Your task to perform on an android device: Add alienware area 51 to the cart on newegg.com, then select checkout. Image 0: 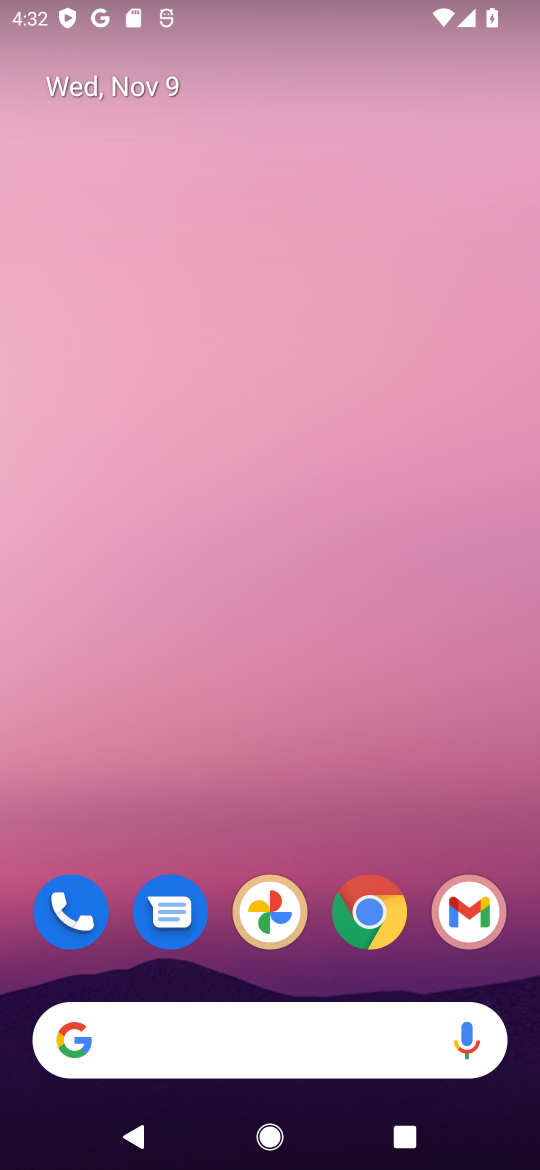
Step 0: click (371, 909)
Your task to perform on an android device: Add alienware area 51 to the cart on newegg.com, then select checkout. Image 1: 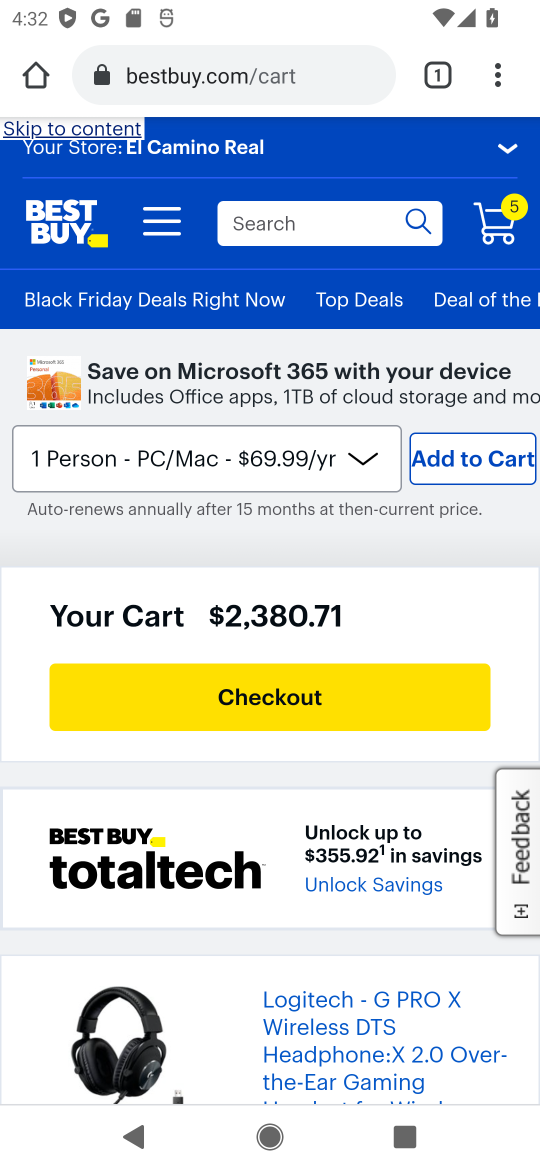
Step 1: click (278, 72)
Your task to perform on an android device: Add alienware area 51 to the cart on newegg.com, then select checkout. Image 2: 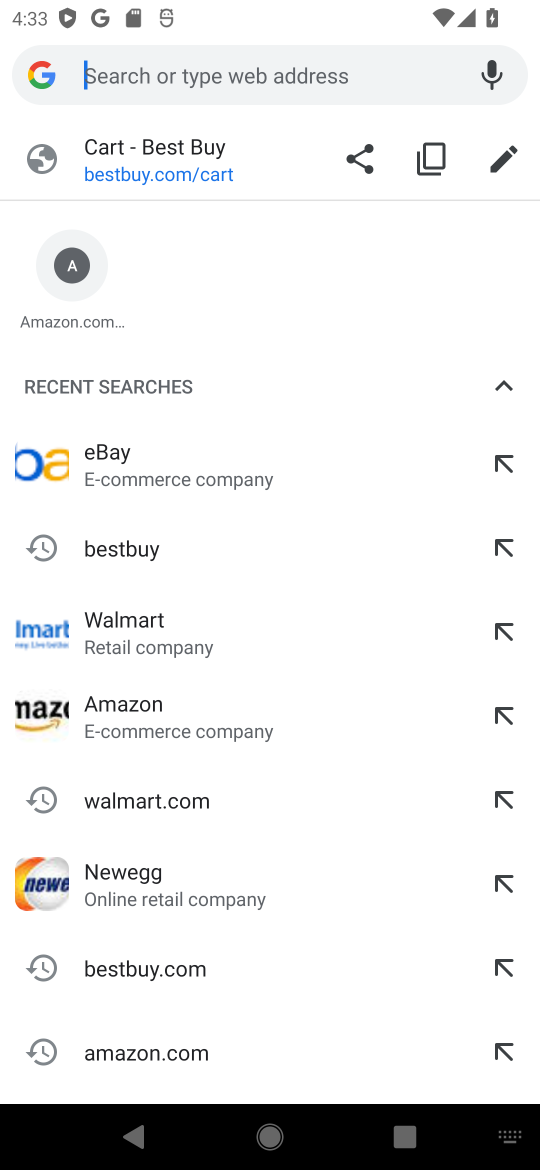
Step 2: type "newegg.com"
Your task to perform on an android device: Add alienware area 51 to the cart on newegg.com, then select checkout. Image 3: 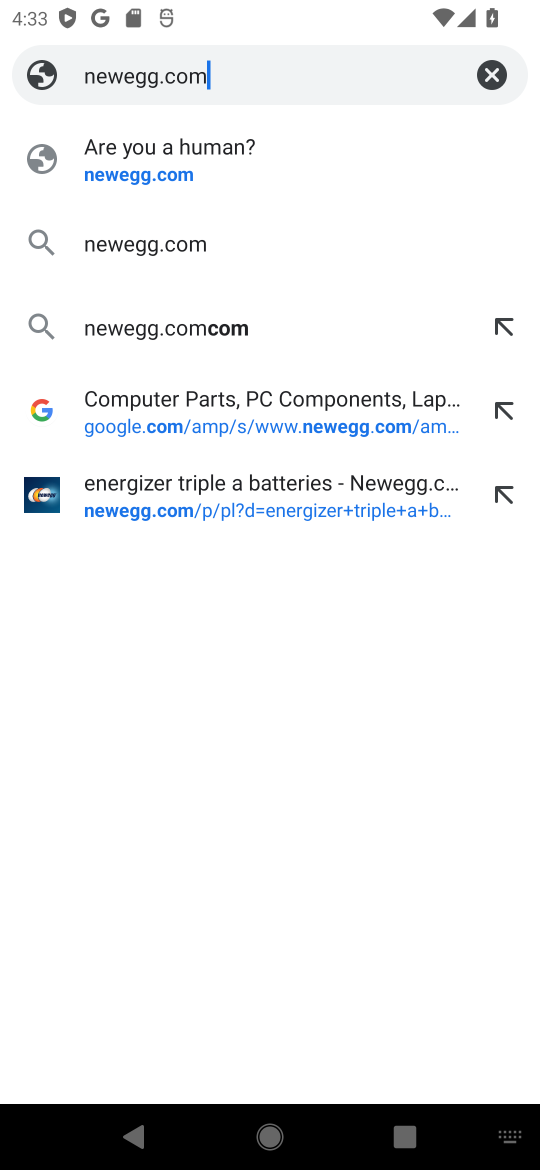
Step 3: click (163, 241)
Your task to perform on an android device: Add alienware area 51 to the cart on newegg.com, then select checkout. Image 4: 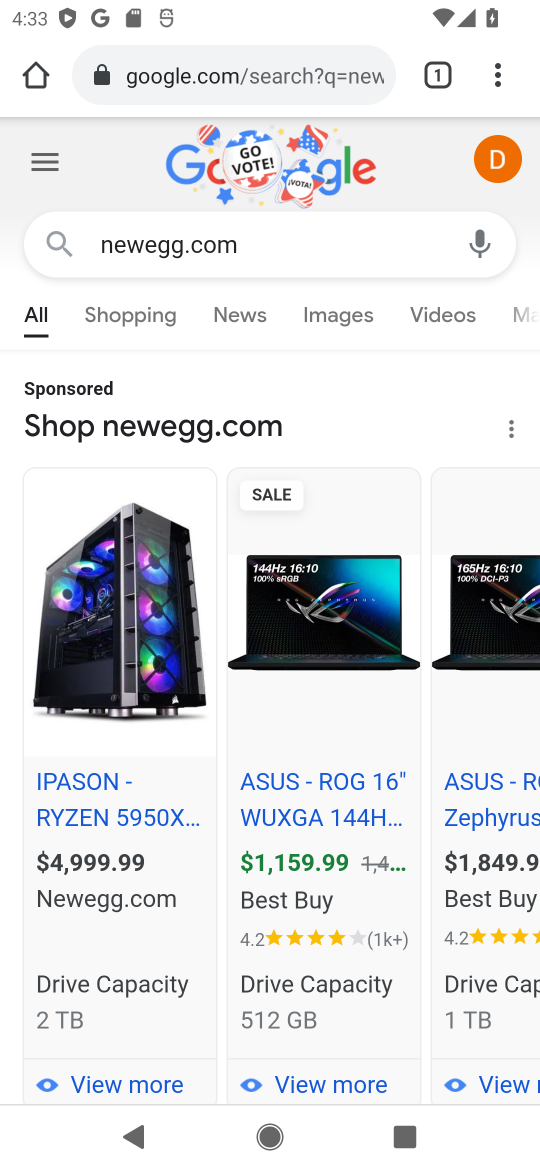
Step 4: drag from (290, 916) to (344, 325)
Your task to perform on an android device: Add alienware area 51 to the cart on newegg.com, then select checkout. Image 5: 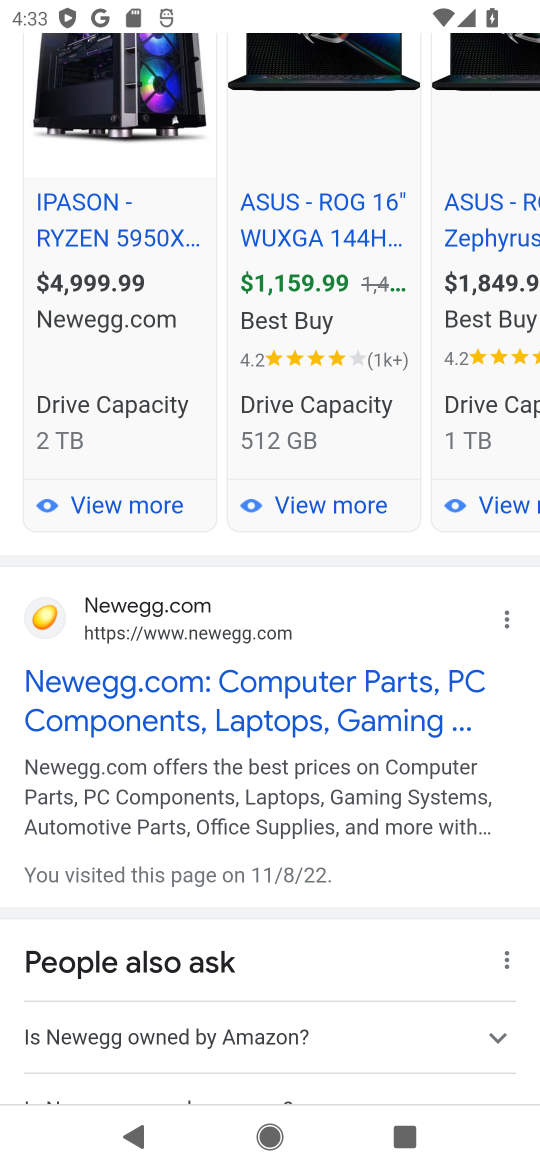
Step 5: click (282, 724)
Your task to perform on an android device: Add alienware area 51 to the cart on newegg.com, then select checkout. Image 6: 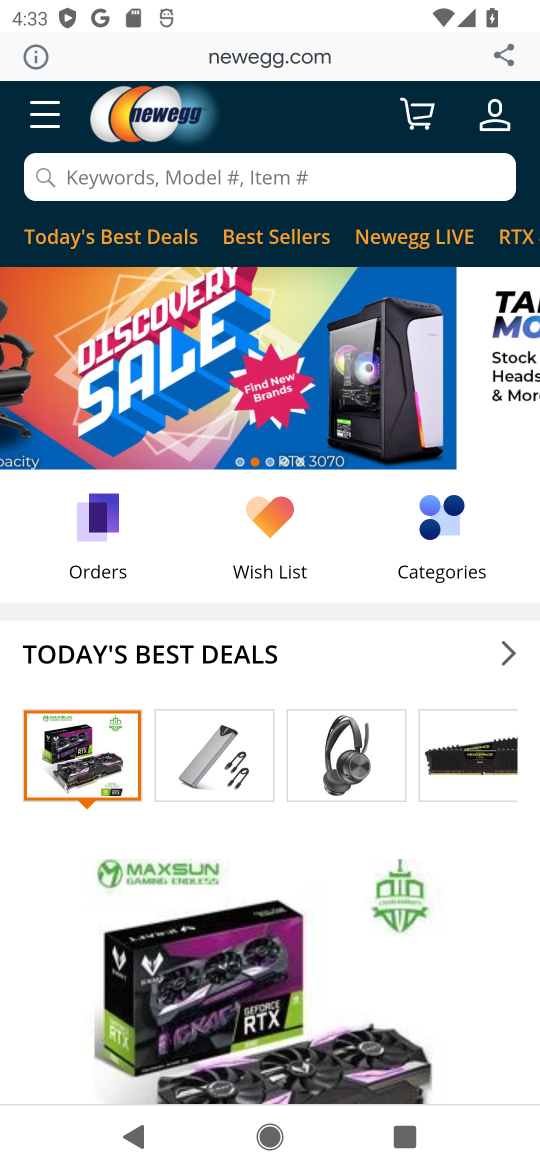
Step 6: click (325, 184)
Your task to perform on an android device: Add alienware area 51 to the cart on newegg.com, then select checkout. Image 7: 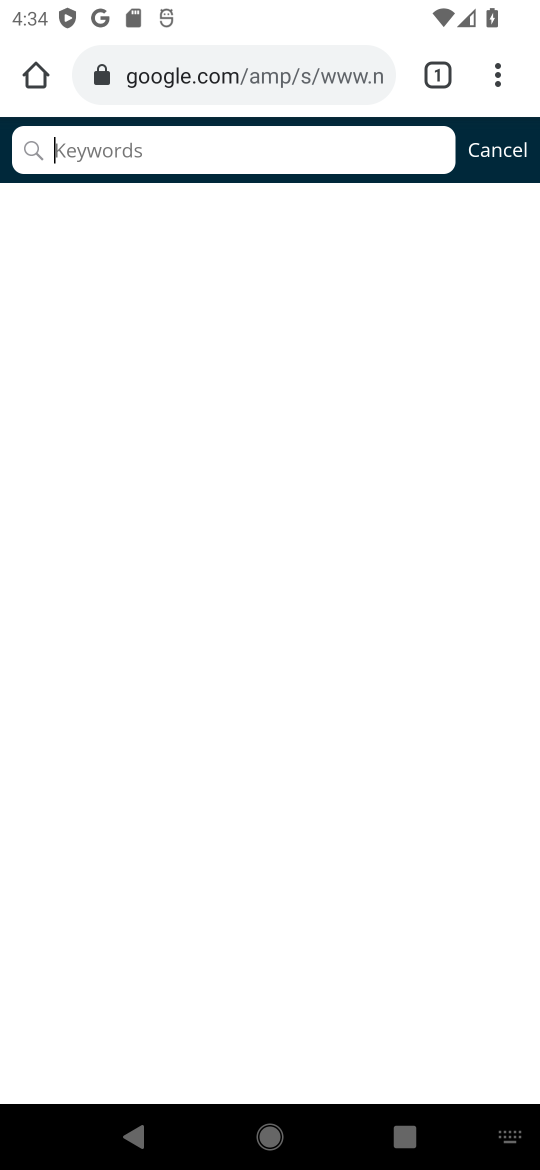
Step 7: type "alienware area 51"
Your task to perform on an android device: Add alienware area 51 to the cart on newegg.com, then select checkout. Image 8: 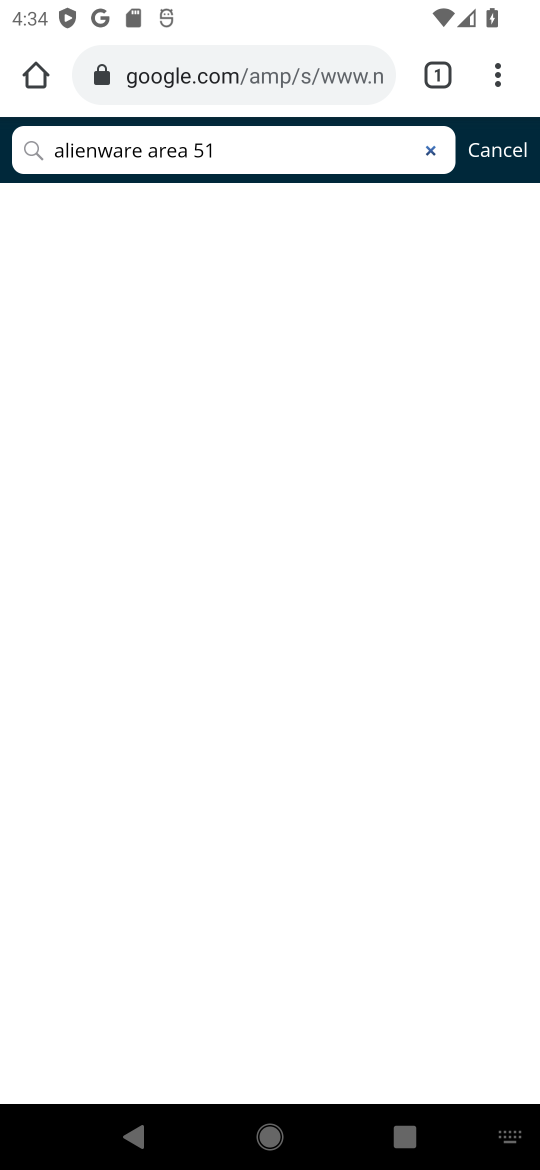
Step 8: task complete